Your task to perform on an android device: open app "Google Chrome" Image 0: 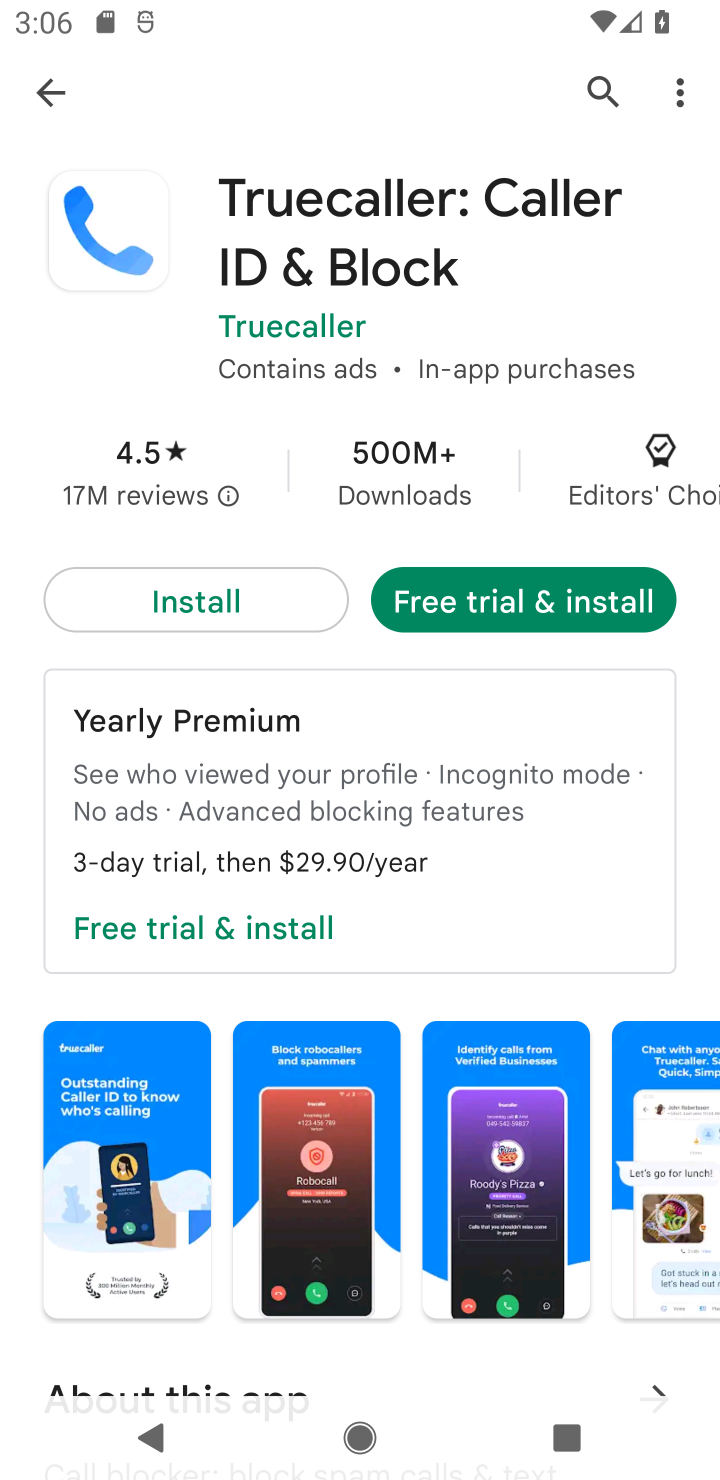
Step 0: click (598, 90)
Your task to perform on an android device: open app "Google Chrome" Image 1: 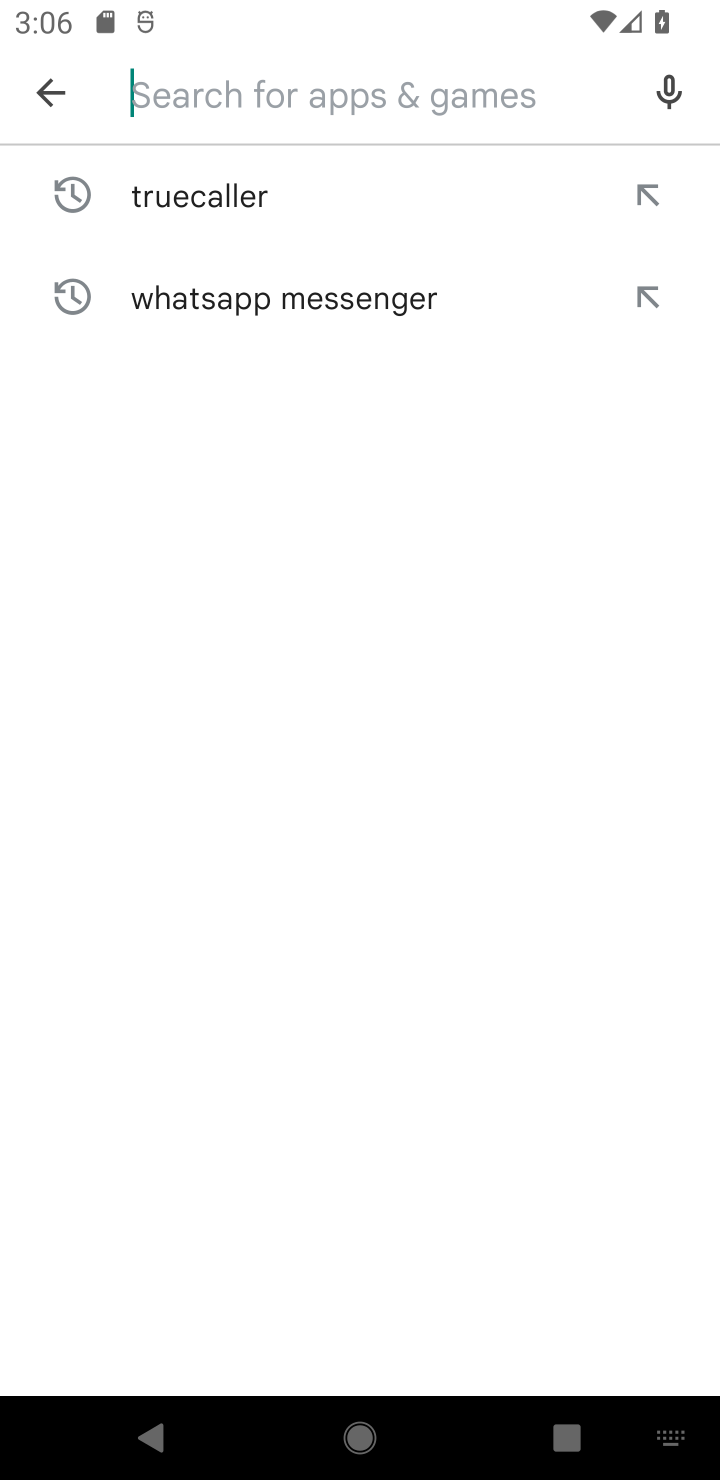
Step 1: type "google chrome"
Your task to perform on an android device: open app "Google Chrome" Image 2: 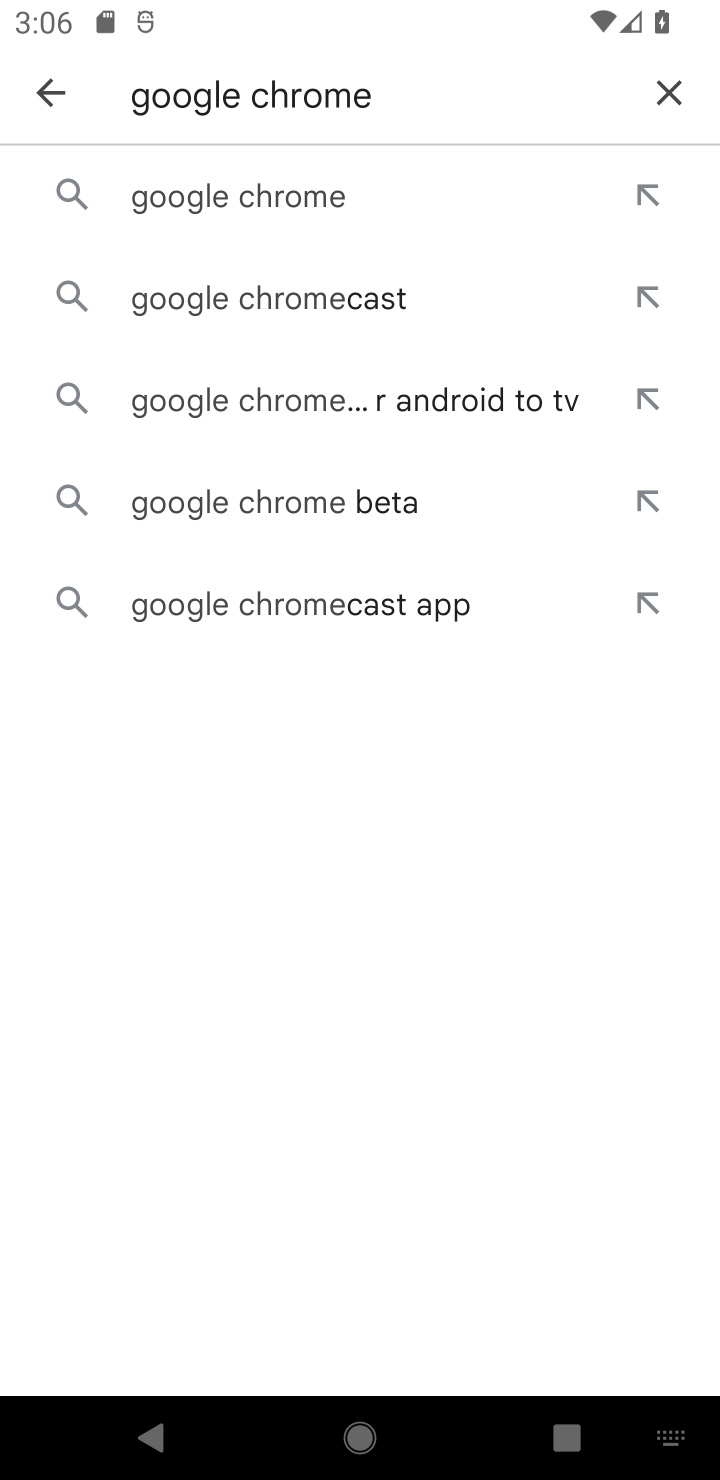
Step 2: click (442, 182)
Your task to perform on an android device: open app "Google Chrome" Image 3: 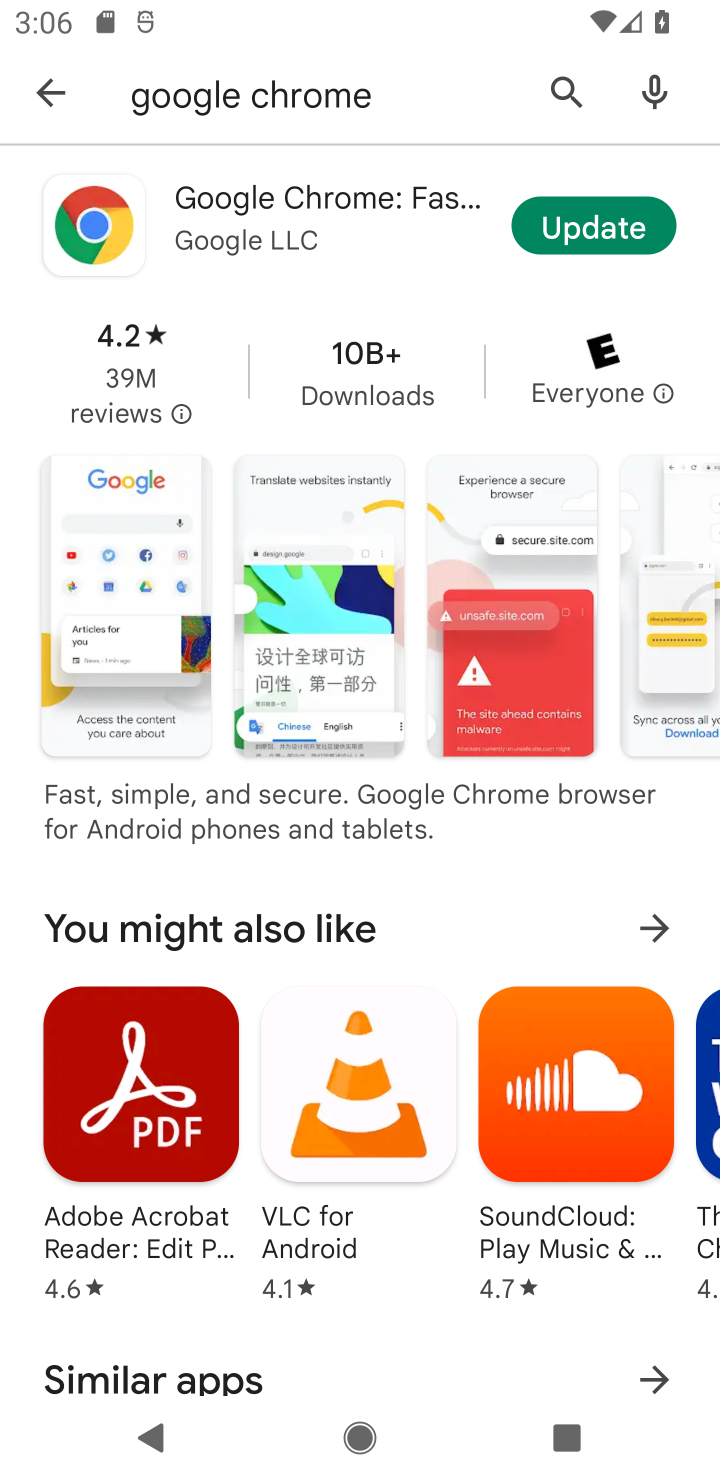
Step 3: click (375, 191)
Your task to perform on an android device: open app "Google Chrome" Image 4: 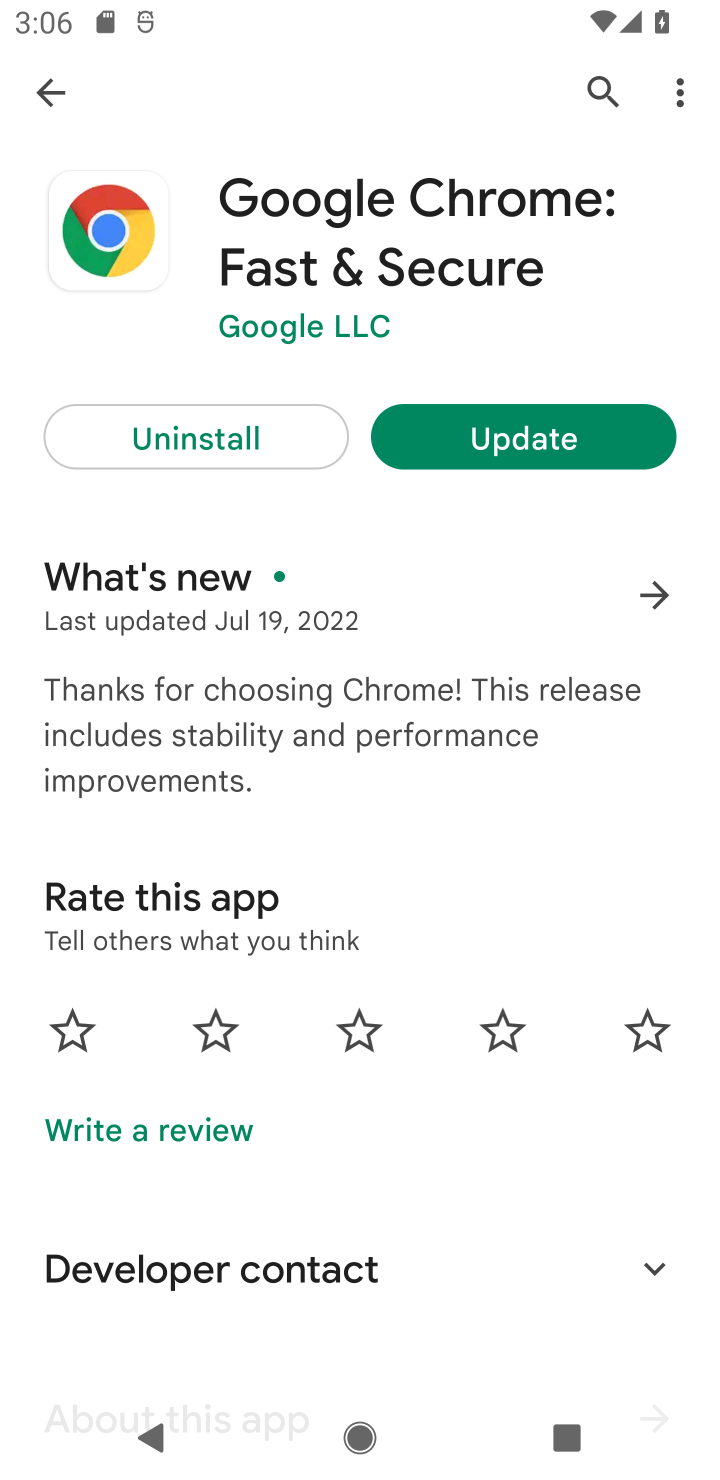
Step 4: task complete